Your task to perform on an android device: Find coffee shops on Maps Image 0: 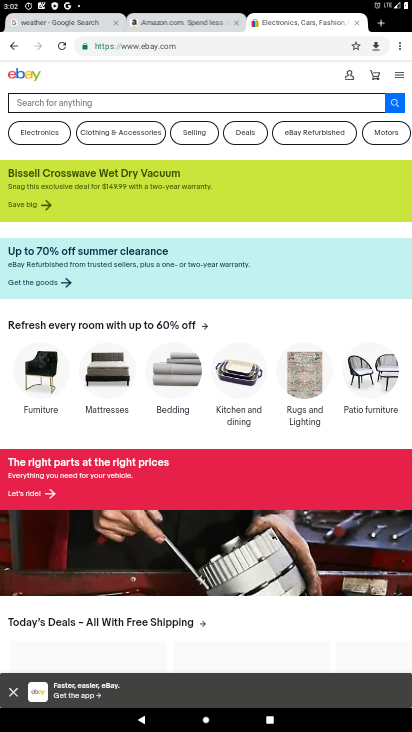
Step 0: press home button
Your task to perform on an android device: Find coffee shops on Maps Image 1: 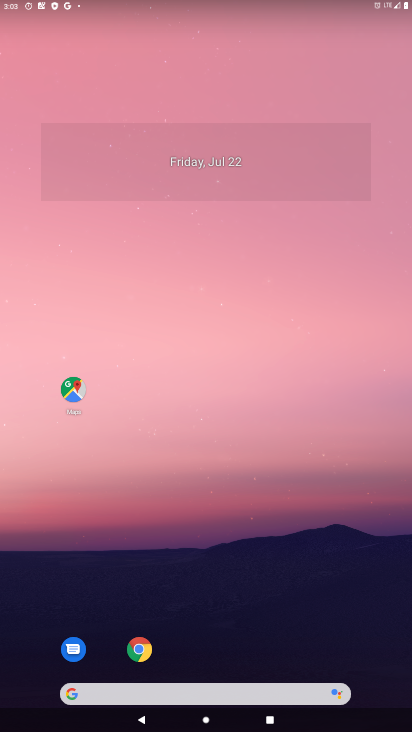
Step 1: drag from (257, 346) to (255, 126)
Your task to perform on an android device: Find coffee shops on Maps Image 2: 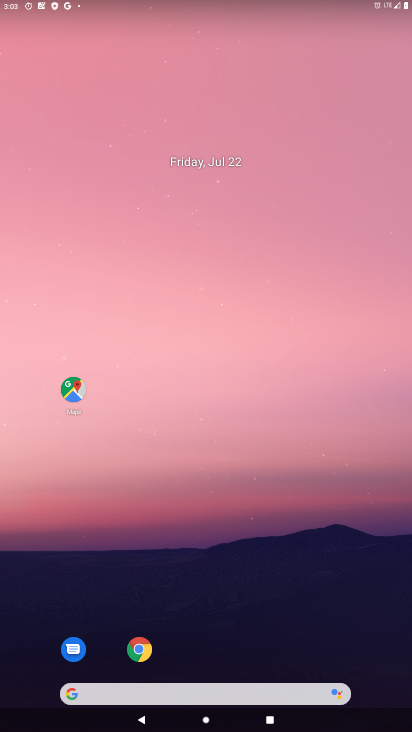
Step 2: drag from (258, 573) to (134, 0)
Your task to perform on an android device: Find coffee shops on Maps Image 3: 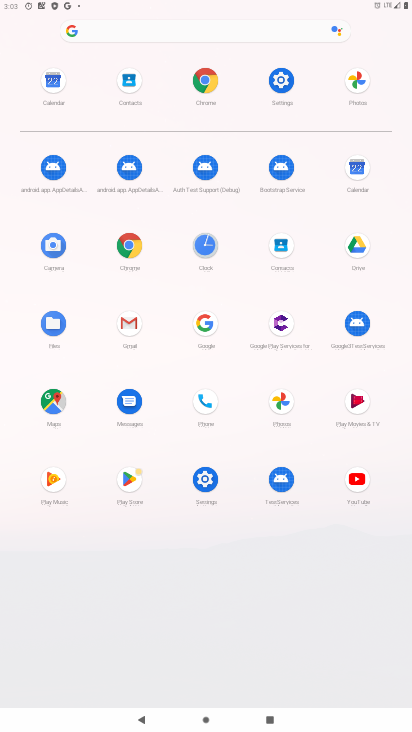
Step 3: click (56, 398)
Your task to perform on an android device: Find coffee shops on Maps Image 4: 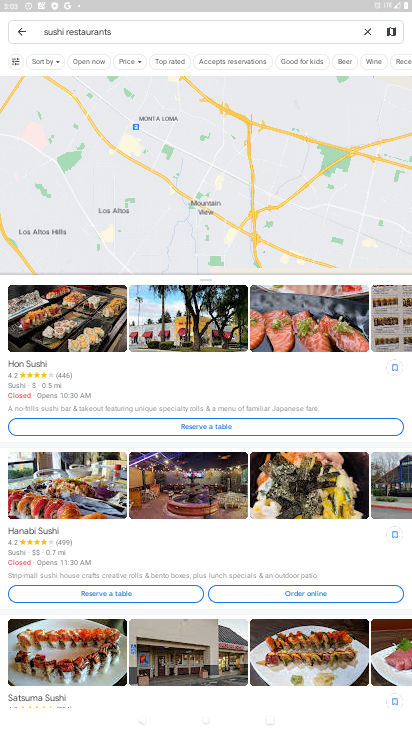
Step 4: click (270, 28)
Your task to perform on an android device: Find coffee shops on Maps Image 5: 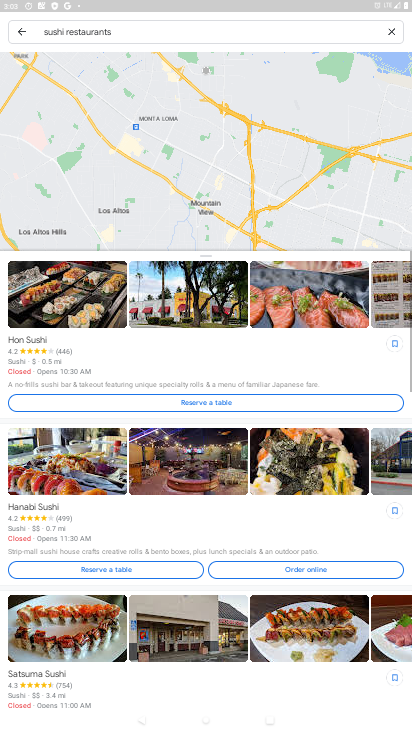
Step 5: click (370, 29)
Your task to perform on an android device: Find coffee shops on Maps Image 6: 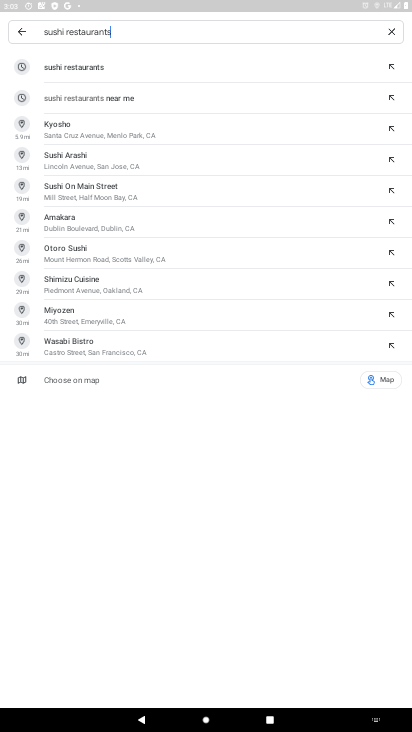
Step 6: click (389, 27)
Your task to perform on an android device: Find coffee shops on Maps Image 7: 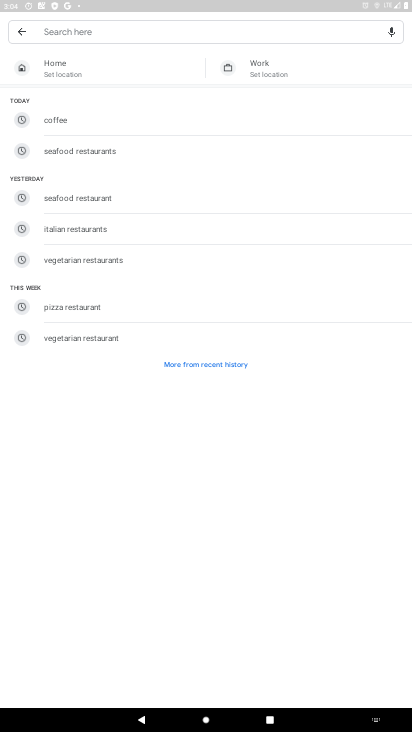
Step 7: type "coffee shops"
Your task to perform on an android device: Find coffee shops on Maps Image 8: 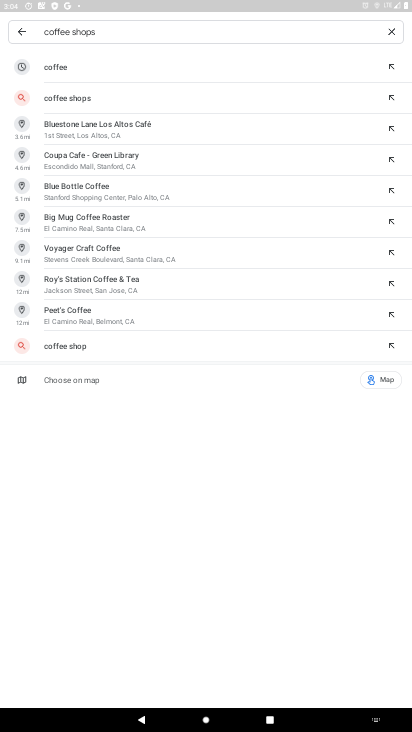
Step 8: press enter
Your task to perform on an android device: Find coffee shops on Maps Image 9: 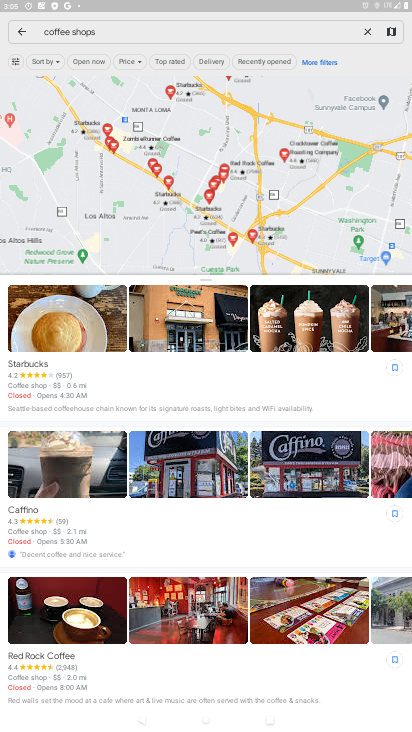
Step 9: task complete